Your task to perform on an android device: check out phone information Image 0: 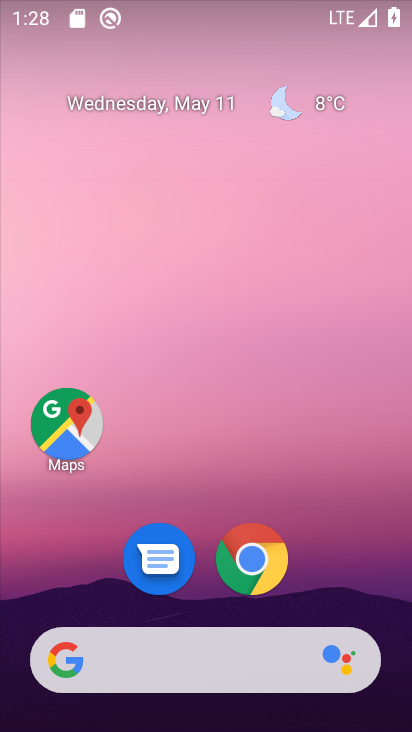
Step 0: drag from (204, 721) to (217, 154)
Your task to perform on an android device: check out phone information Image 1: 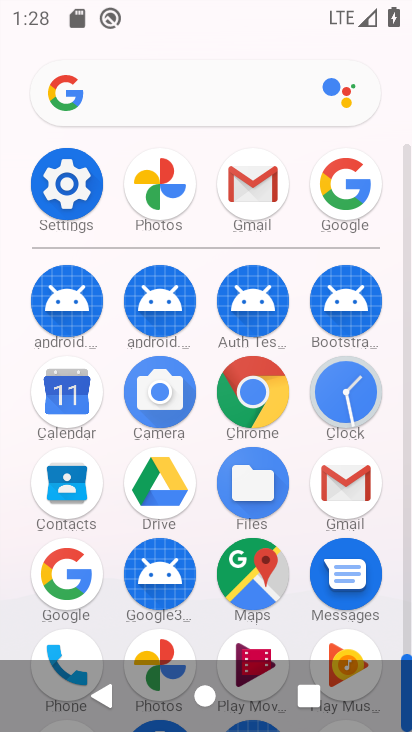
Step 1: click (67, 186)
Your task to perform on an android device: check out phone information Image 2: 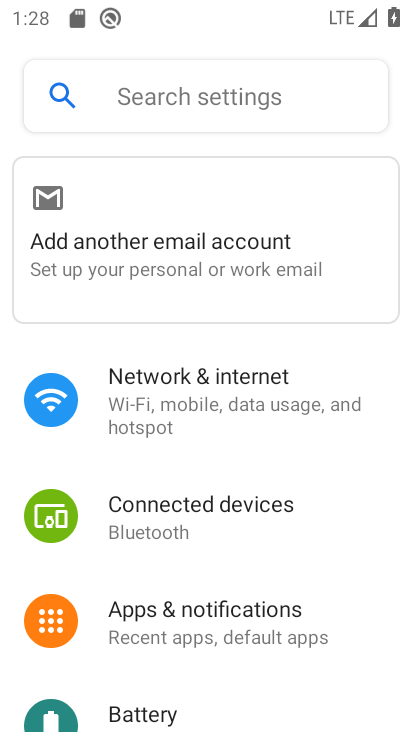
Step 2: drag from (216, 472) to (214, 113)
Your task to perform on an android device: check out phone information Image 3: 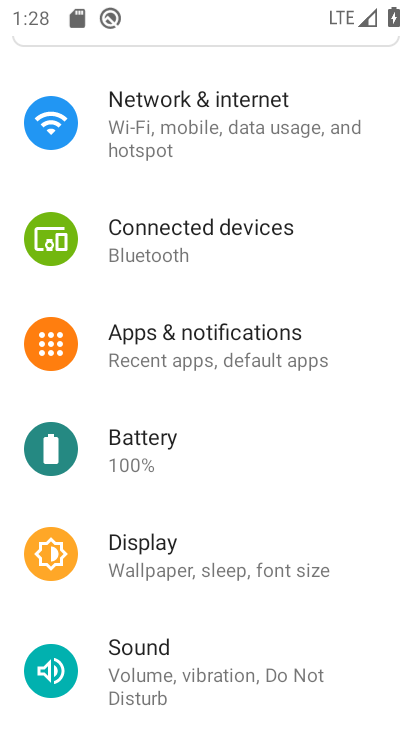
Step 3: drag from (171, 716) to (178, 234)
Your task to perform on an android device: check out phone information Image 4: 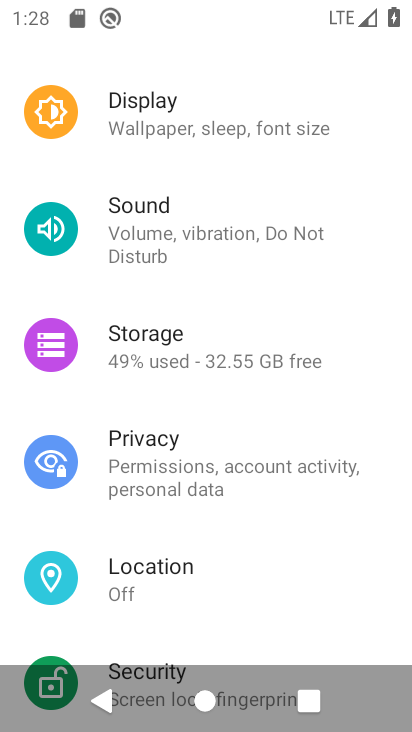
Step 4: drag from (185, 635) to (185, 223)
Your task to perform on an android device: check out phone information Image 5: 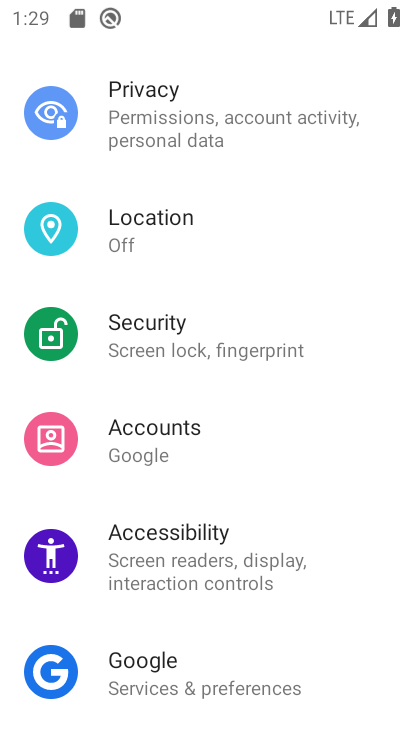
Step 5: drag from (176, 677) to (178, 207)
Your task to perform on an android device: check out phone information Image 6: 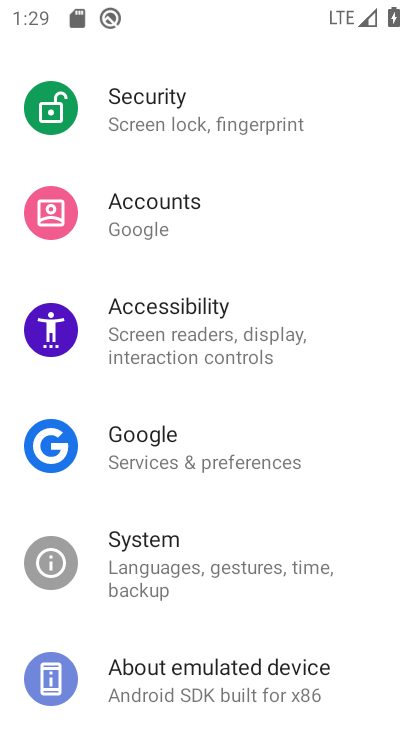
Step 6: click (232, 687)
Your task to perform on an android device: check out phone information Image 7: 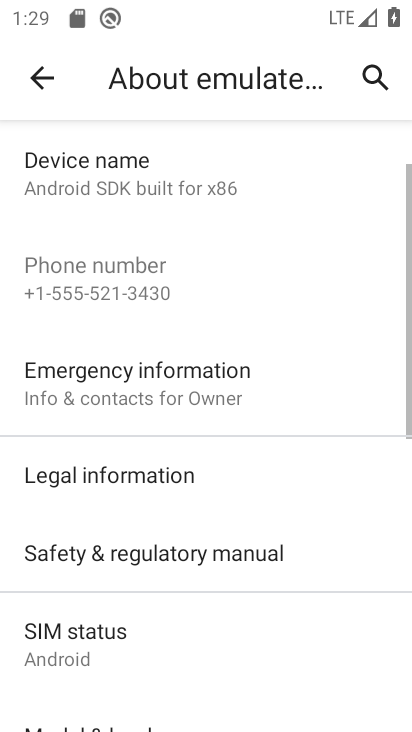
Step 7: task complete